Your task to perform on an android device: Open settings Image 0: 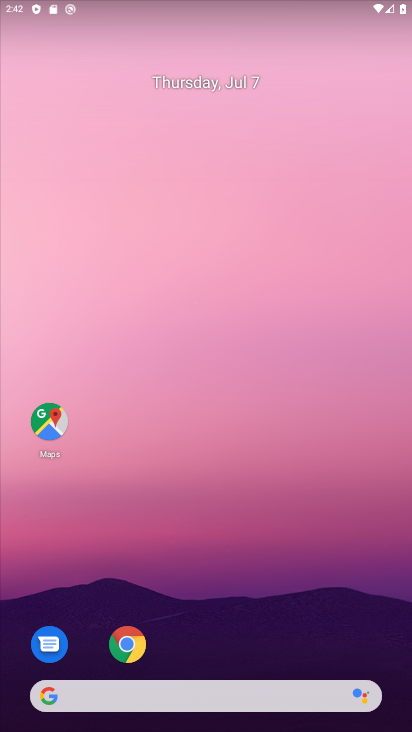
Step 0: drag from (234, 524) to (189, 77)
Your task to perform on an android device: Open settings Image 1: 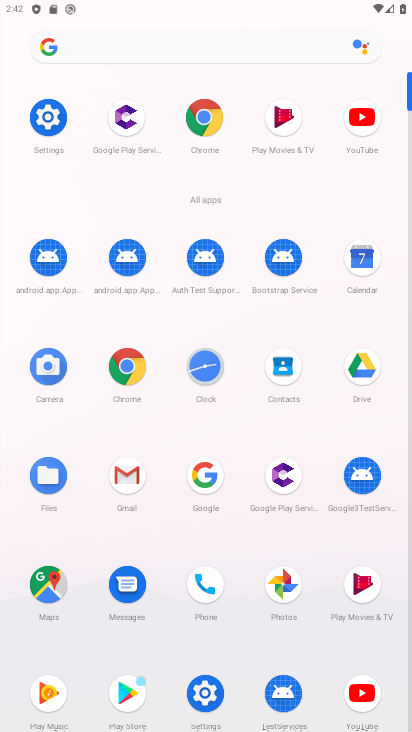
Step 1: click (51, 123)
Your task to perform on an android device: Open settings Image 2: 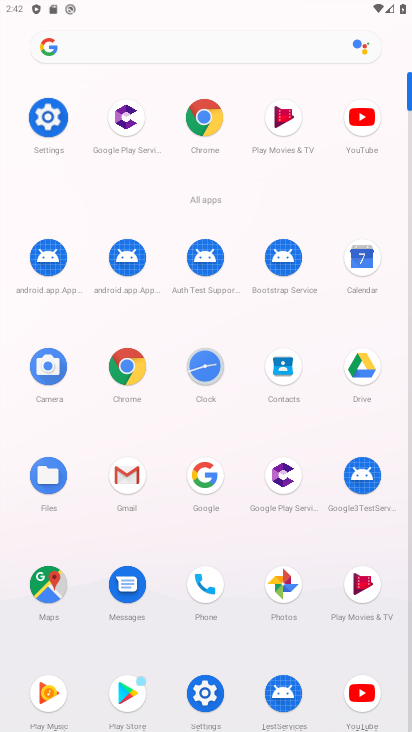
Step 2: click (50, 122)
Your task to perform on an android device: Open settings Image 3: 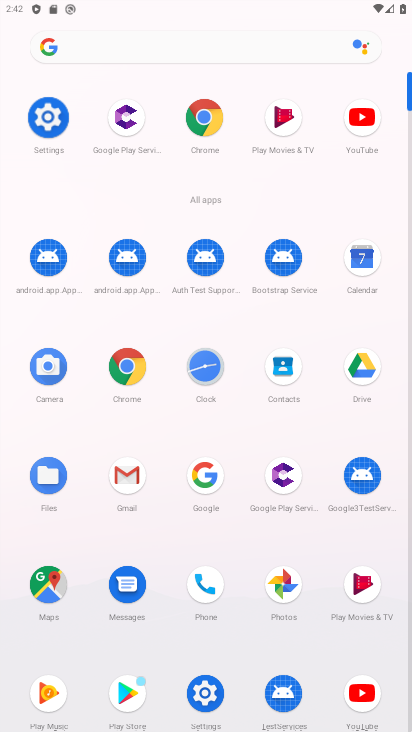
Step 3: click (50, 122)
Your task to perform on an android device: Open settings Image 4: 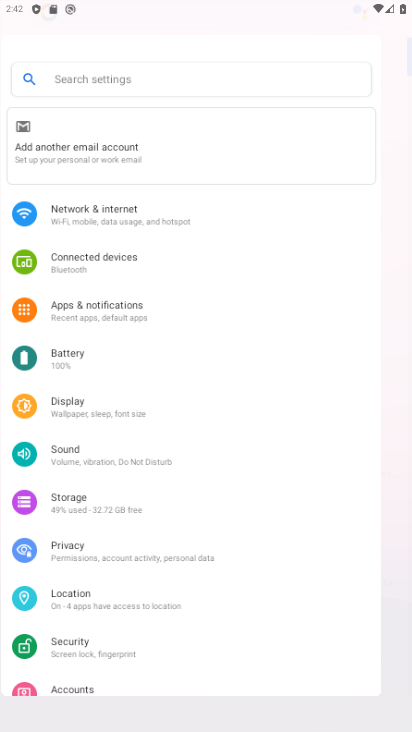
Step 4: click (50, 122)
Your task to perform on an android device: Open settings Image 5: 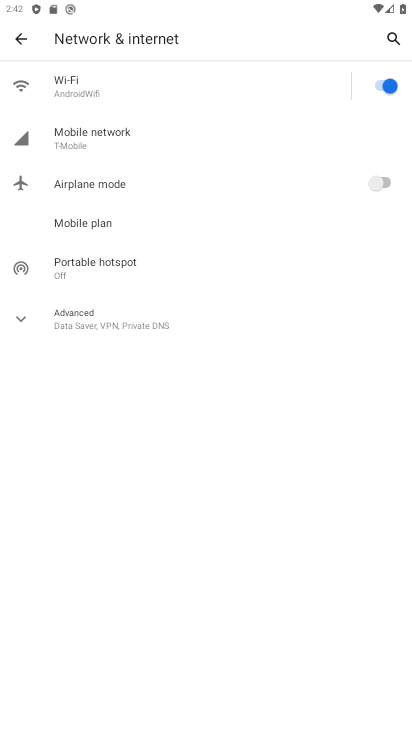
Step 5: click (12, 36)
Your task to perform on an android device: Open settings Image 6: 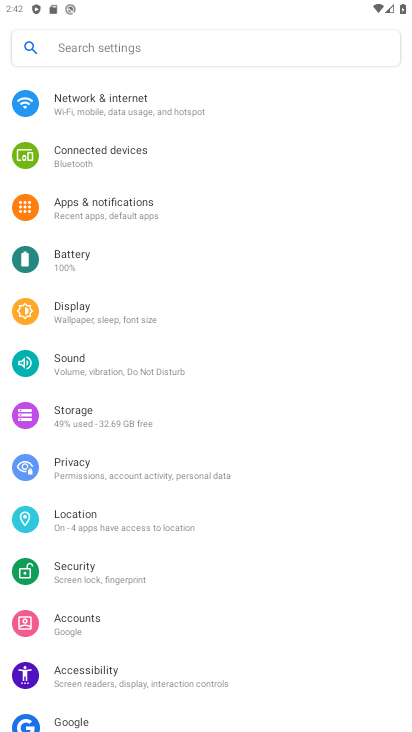
Step 6: task complete